Your task to perform on an android device: turn on priority inbox in the gmail app Image 0: 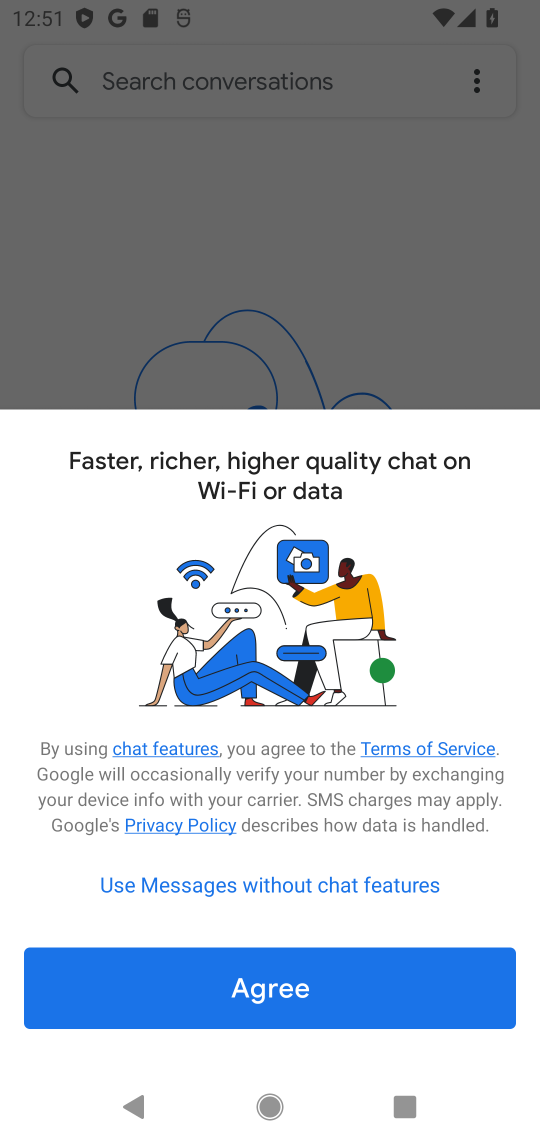
Step 0: press home button
Your task to perform on an android device: turn on priority inbox in the gmail app Image 1: 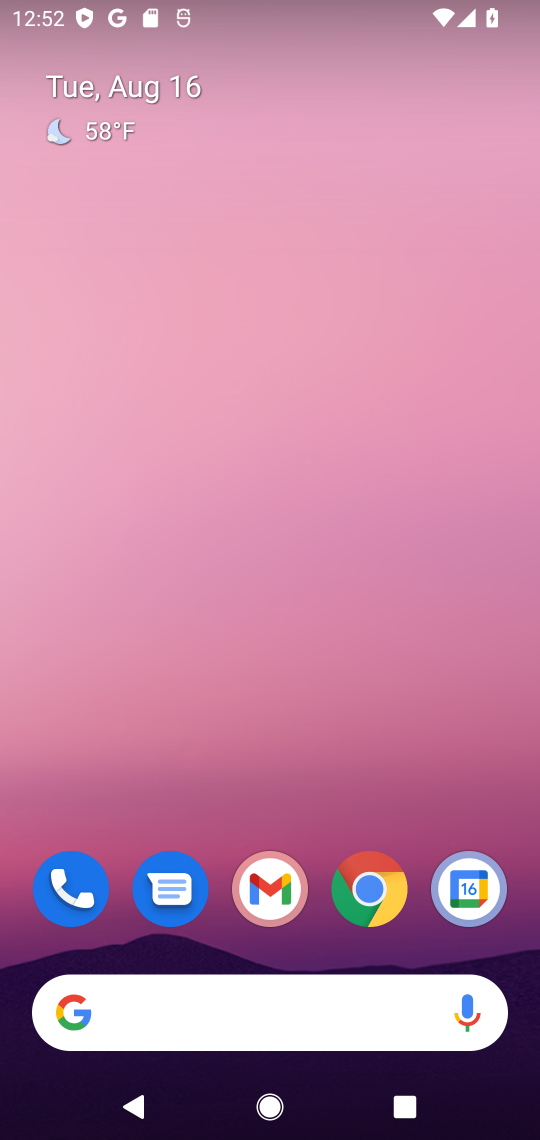
Step 1: drag from (294, 1020) to (332, 74)
Your task to perform on an android device: turn on priority inbox in the gmail app Image 2: 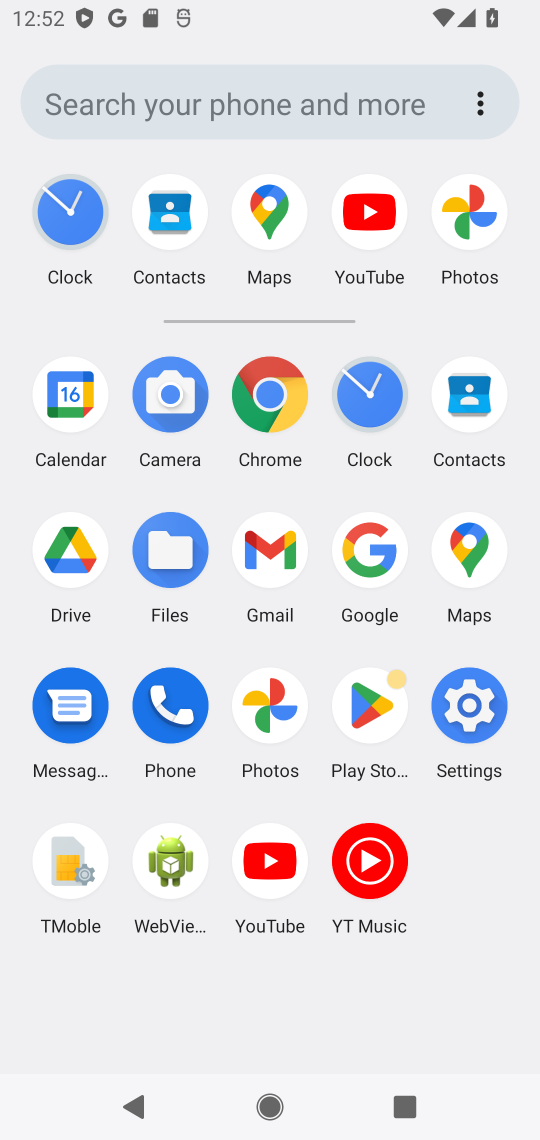
Step 2: click (273, 553)
Your task to perform on an android device: turn on priority inbox in the gmail app Image 3: 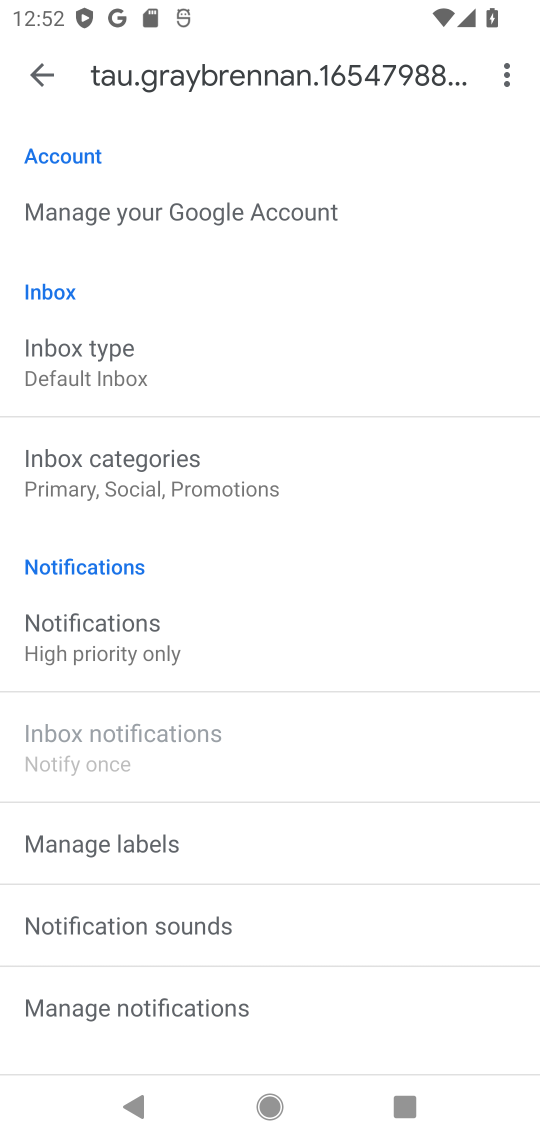
Step 3: drag from (168, 436) to (308, 950)
Your task to perform on an android device: turn on priority inbox in the gmail app Image 4: 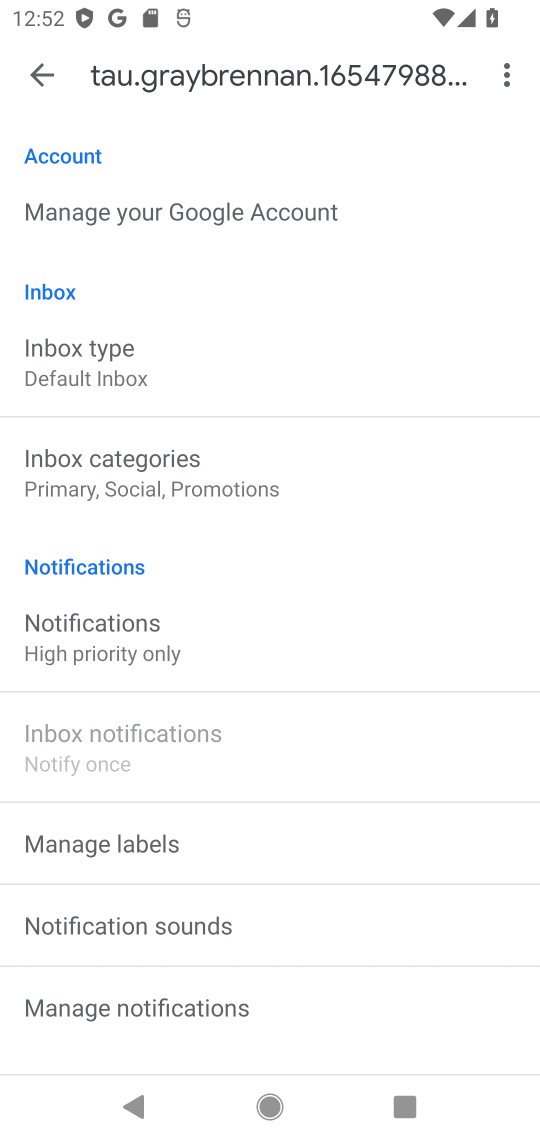
Step 4: click (61, 381)
Your task to perform on an android device: turn on priority inbox in the gmail app Image 5: 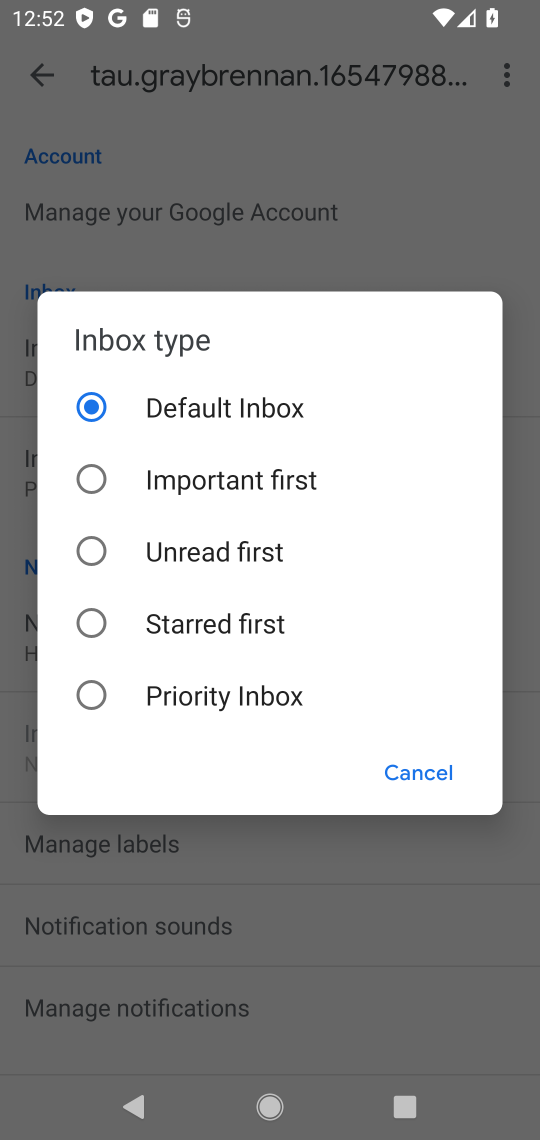
Step 5: click (133, 700)
Your task to perform on an android device: turn on priority inbox in the gmail app Image 6: 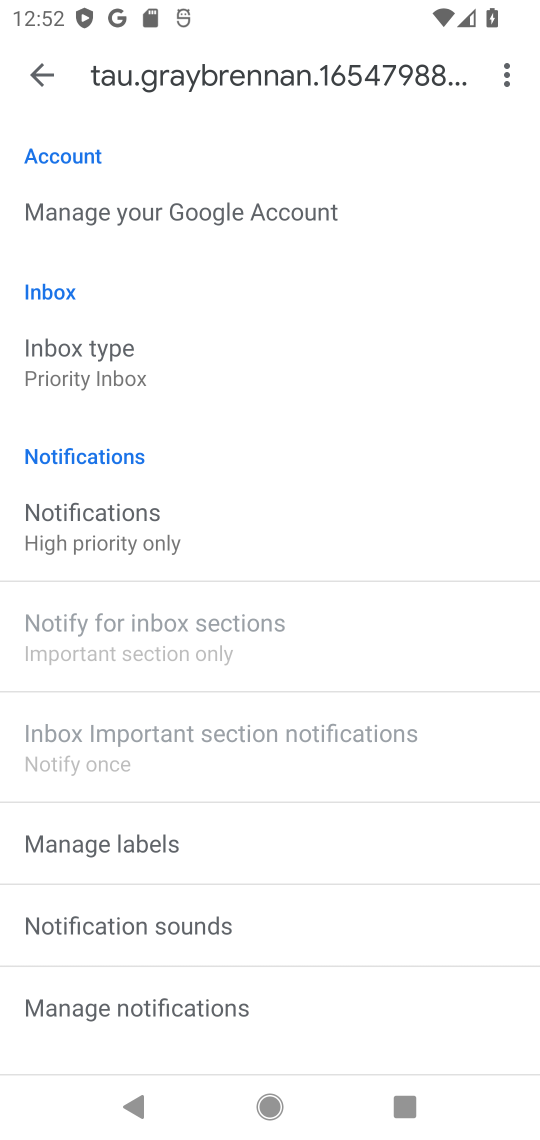
Step 6: task complete